Your task to perform on an android device: What is the capital of Switzerland? Image 0: 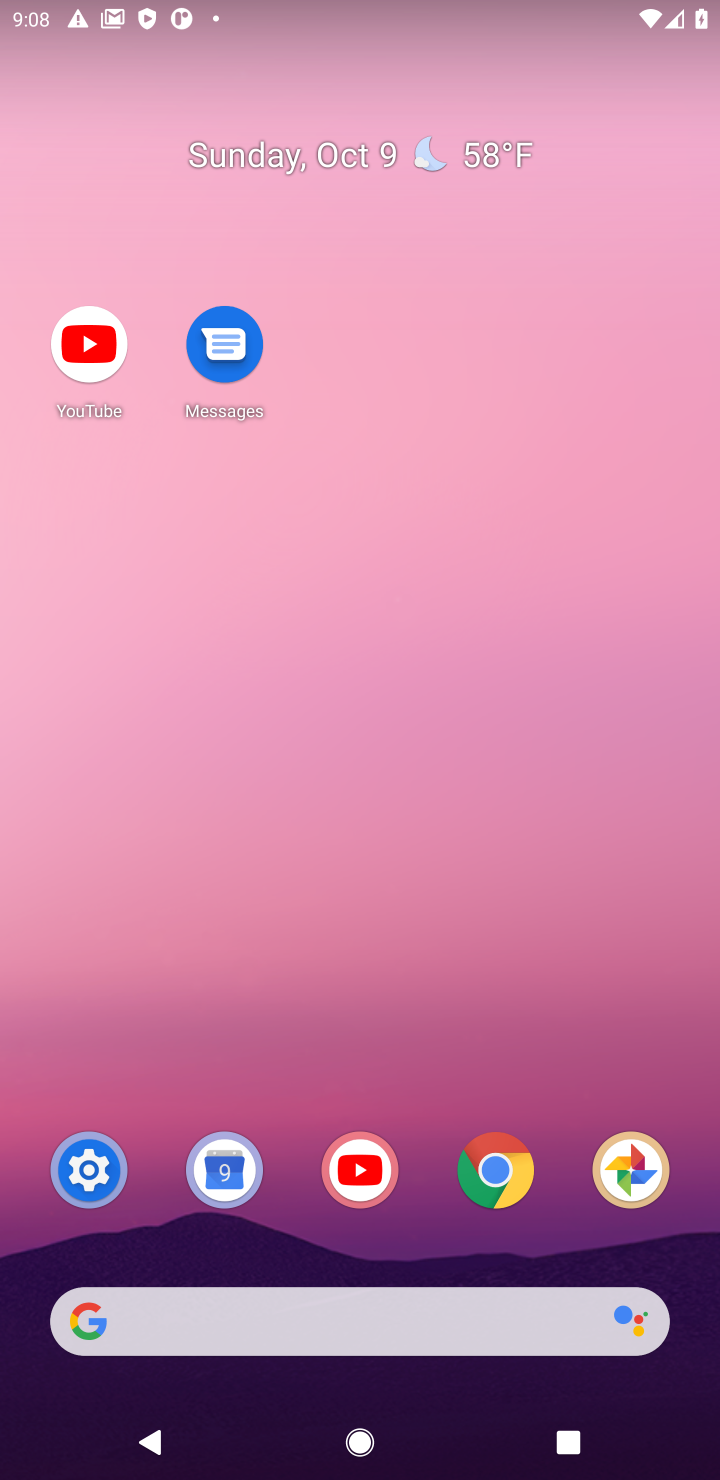
Step 0: click (292, 1328)
Your task to perform on an android device: What is the capital of Switzerland? Image 1: 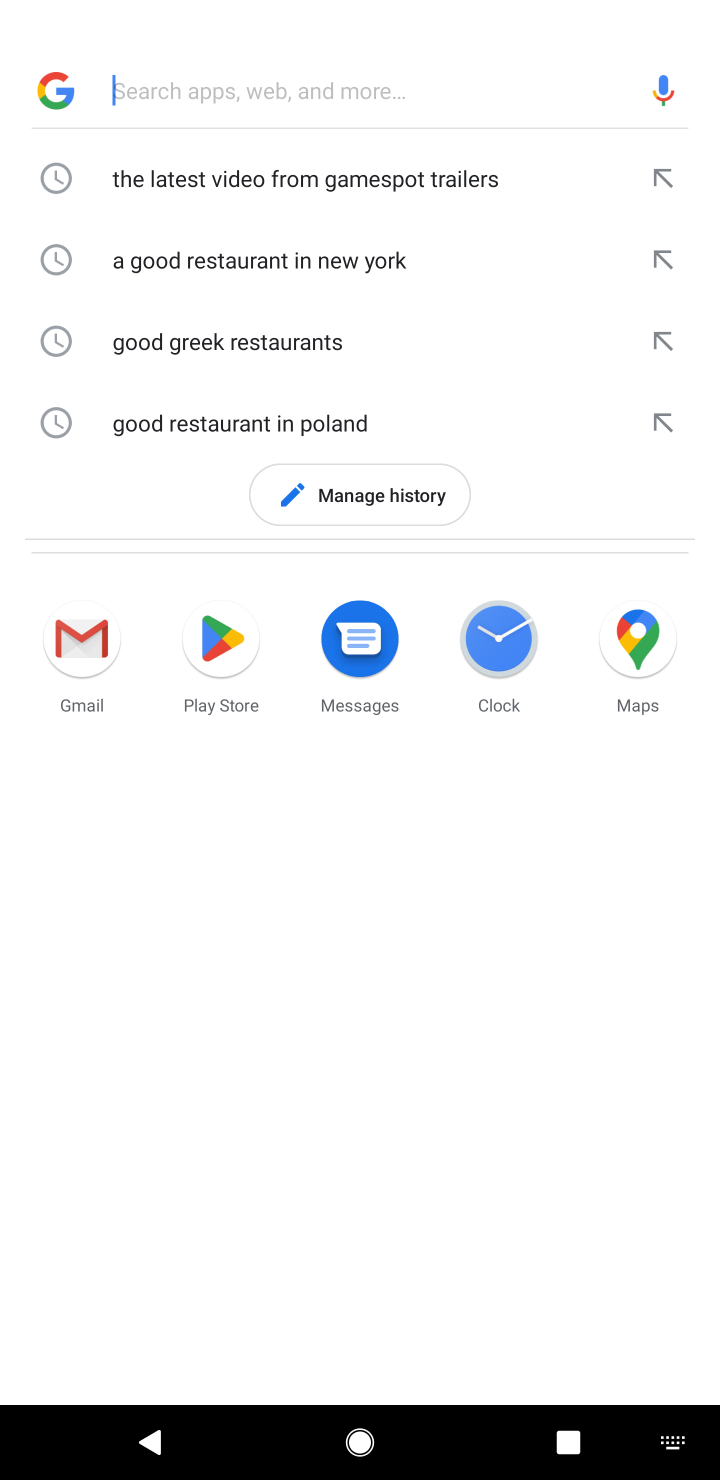
Step 1: type "What is the capital of Switzerland?"
Your task to perform on an android device: What is the capital of Switzerland? Image 2: 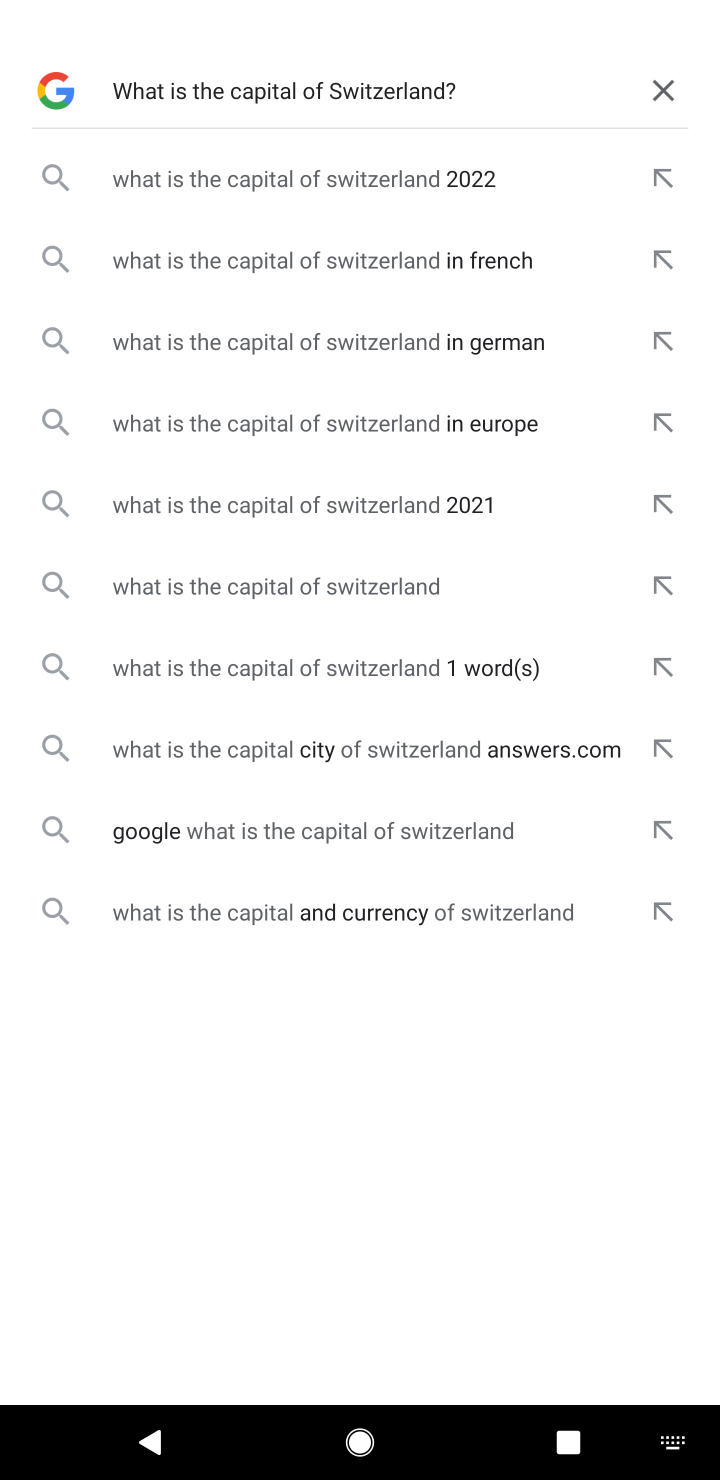
Step 2: click (316, 176)
Your task to perform on an android device: What is the capital of Switzerland? Image 3: 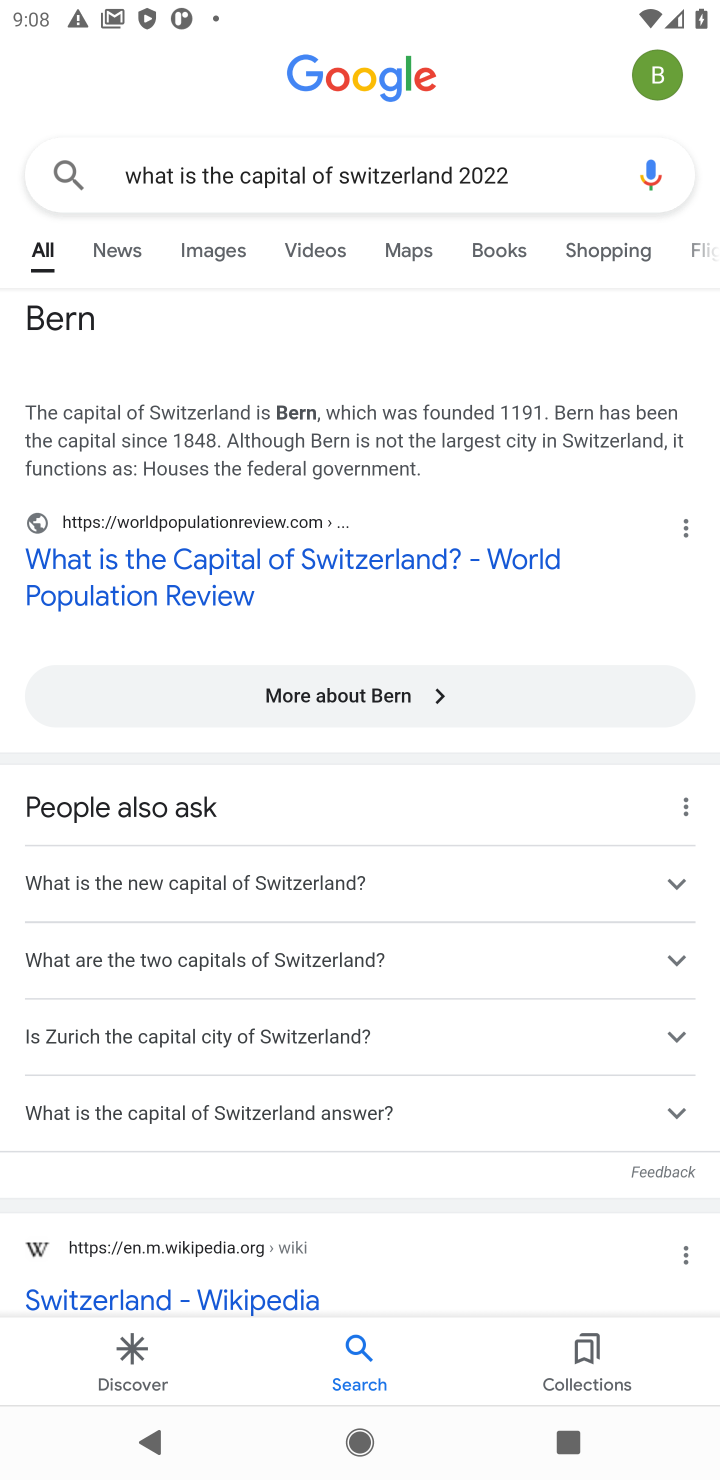
Step 3: task complete